Your task to perform on an android device: What's the weather? Image 0: 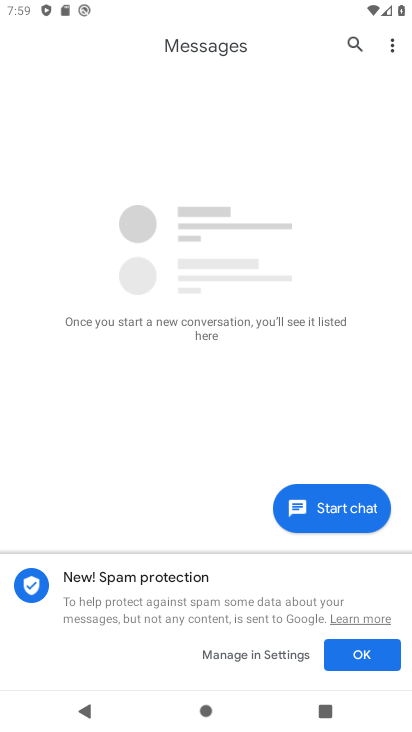
Step 0: press home button
Your task to perform on an android device: What's the weather? Image 1: 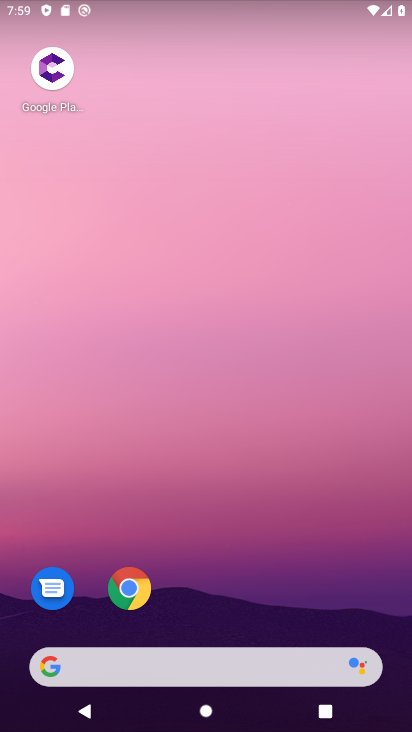
Step 1: drag from (241, 621) to (201, 103)
Your task to perform on an android device: What's the weather? Image 2: 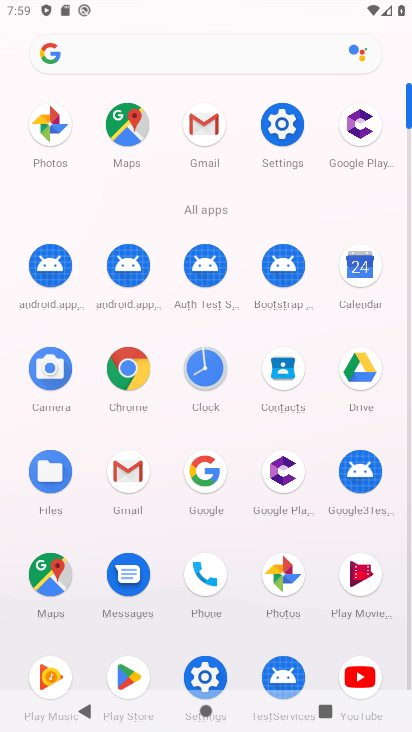
Step 2: click (140, 389)
Your task to perform on an android device: What's the weather? Image 3: 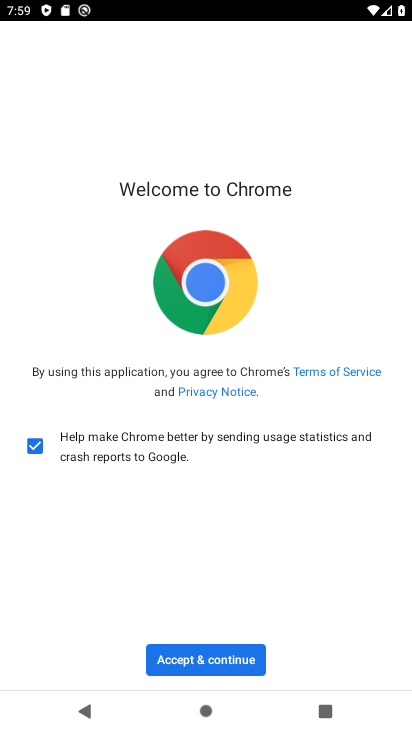
Step 3: click (246, 658)
Your task to perform on an android device: What's the weather? Image 4: 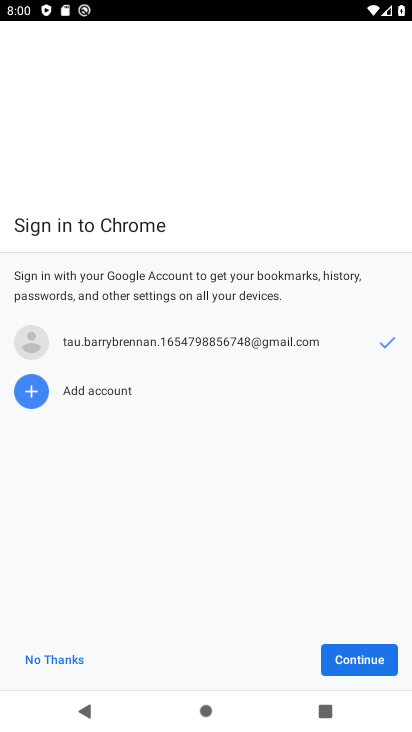
Step 4: click (70, 659)
Your task to perform on an android device: What's the weather? Image 5: 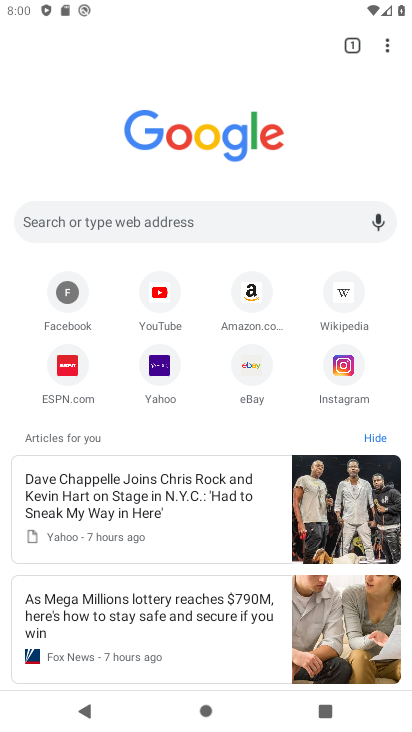
Step 5: click (302, 238)
Your task to perform on an android device: What's the weather? Image 6: 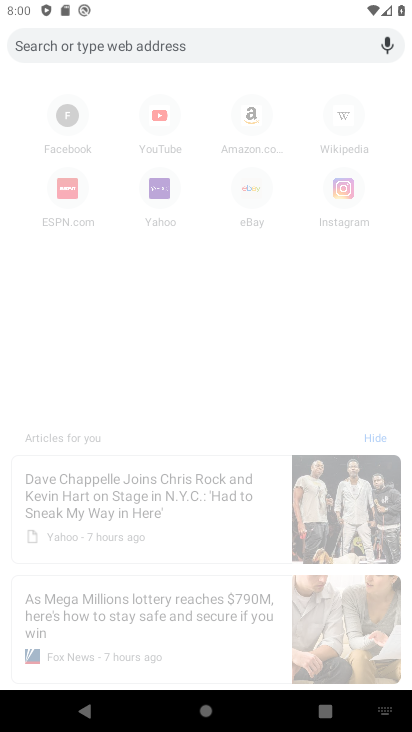
Step 6: type "What's the weather?"
Your task to perform on an android device: What's the weather? Image 7: 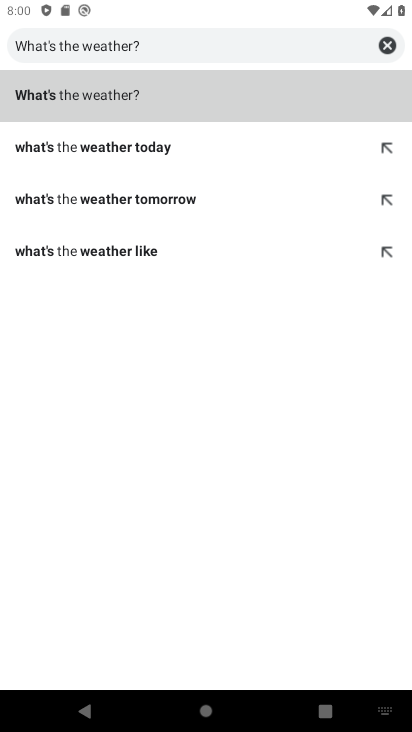
Step 7: click (171, 93)
Your task to perform on an android device: What's the weather? Image 8: 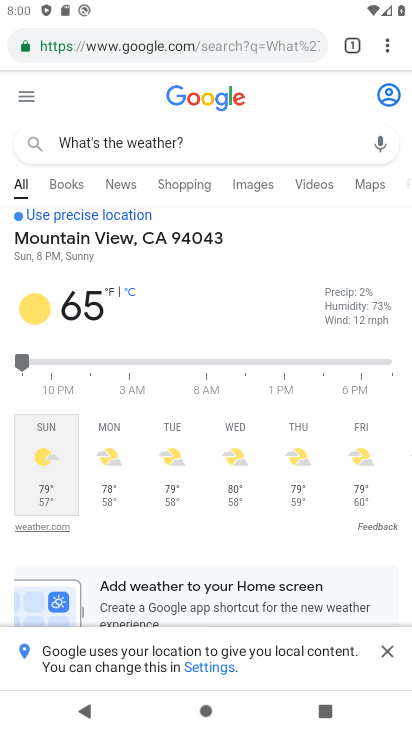
Step 8: task complete